Your task to perform on an android device: move a message to another label in the gmail app Image 0: 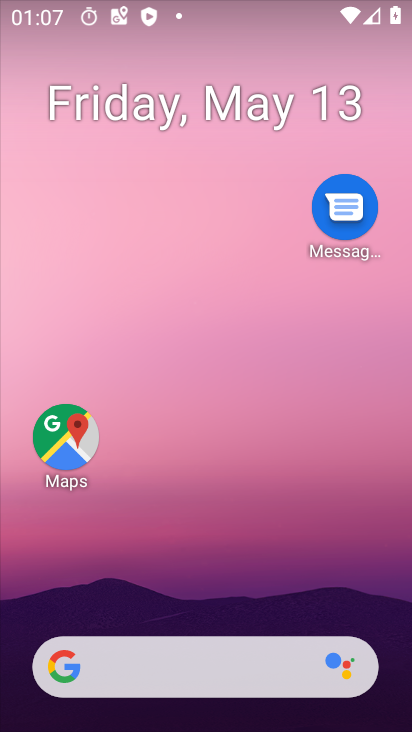
Step 0: drag from (218, 602) to (197, 122)
Your task to perform on an android device: move a message to another label in the gmail app Image 1: 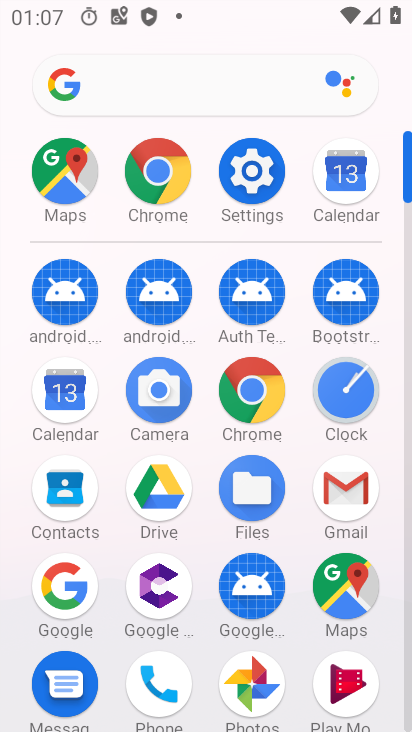
Step 1: click (351, 487)
Your task to perform on an android device: move a message to another label in the gmail app Image 2: 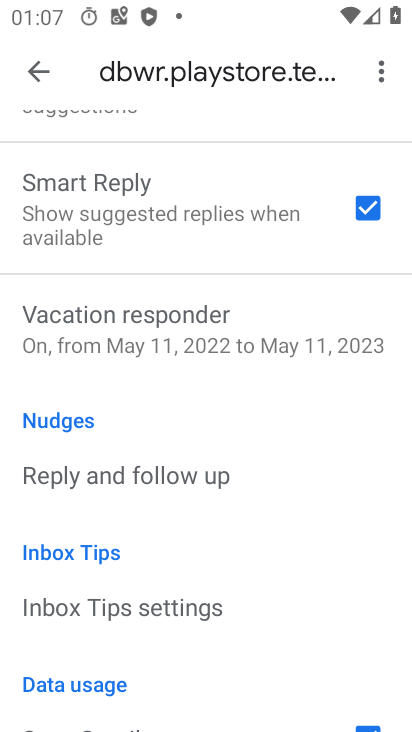
Step 2: drag from (285, 586) to (301, 274)
Your task to perform on an android device: move a message to another label in the gmail app Image 3: 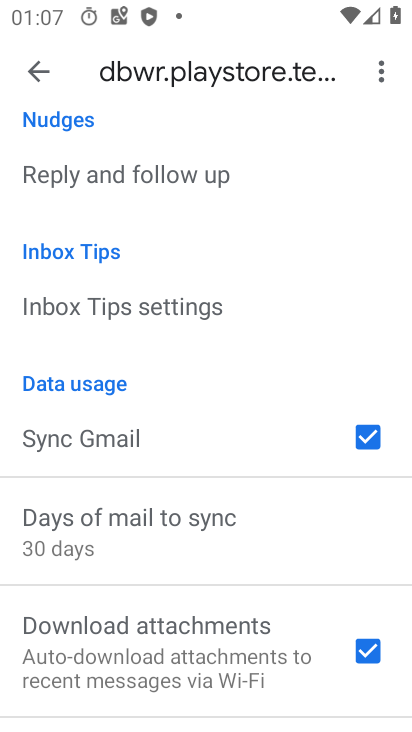
Step 3: click (25, 71)
Your task to perform on an android device: move a message to another label in the gmail app Image 4: 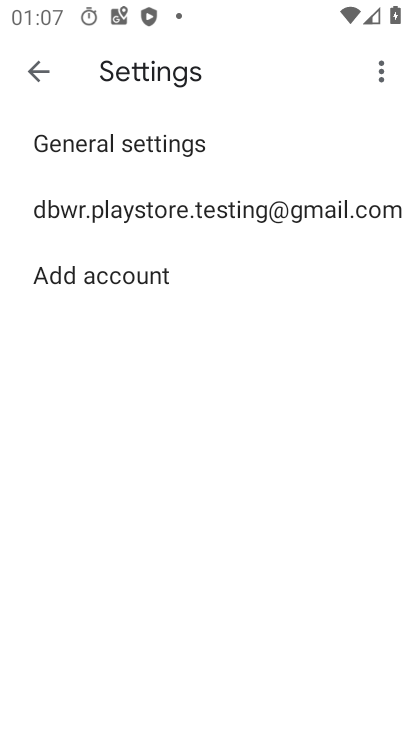
Step 4: click (38, 63)
Your task to perform on an android device: move a message to another label in the gmail app Image 5: 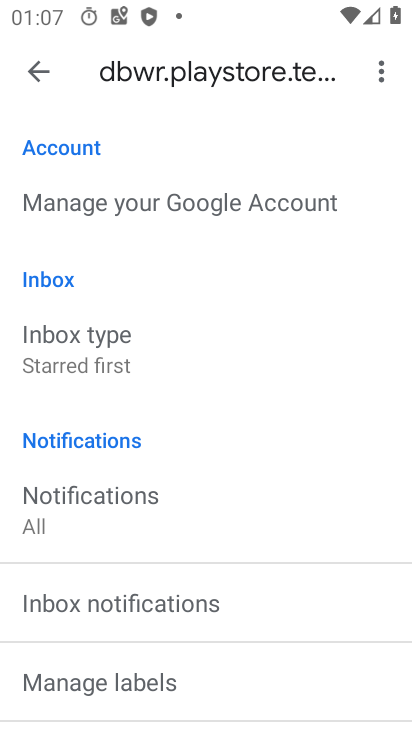
Step 5: click (40, 72)
Your task to perform on an android device: move a message to another label in the gmail app Image 6: 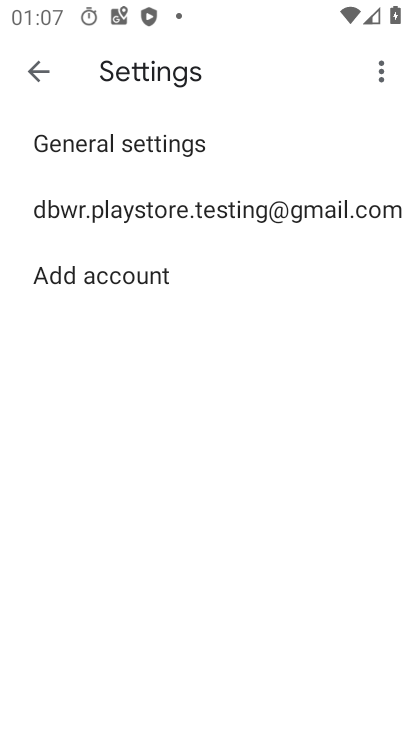
Step 6: click (33, 67)
Your task to perform on an android device: move a message to another label in the gmail app Image 7: 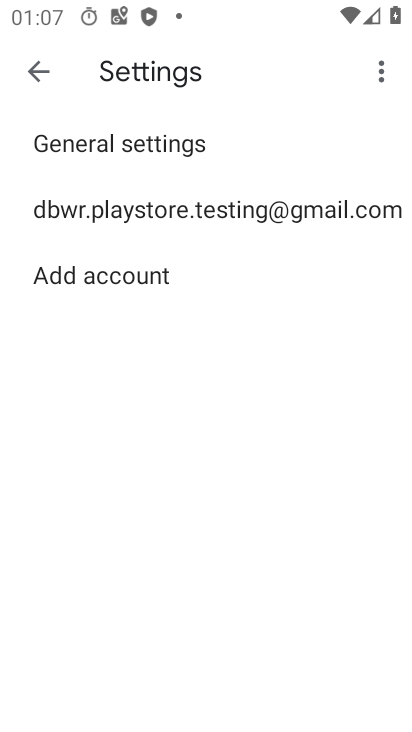
Step 7: click (33, 67)
Your task to perform on an android device: move a message to another label in the gmail app Image 8: 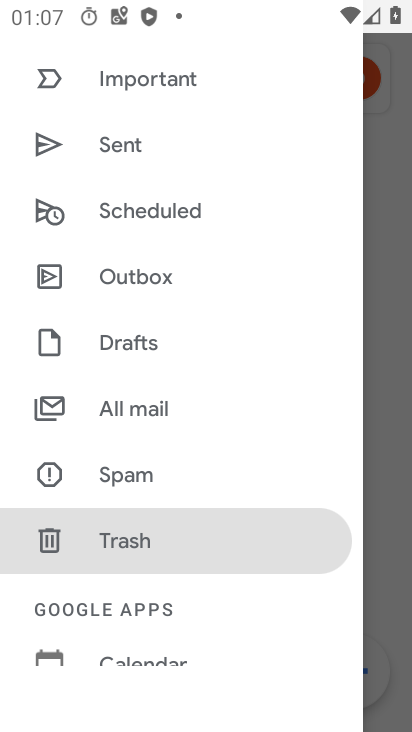
Step 8: click (374, 245)
Your task to perform on an android device: move a message to another label in the gmail app Image 9: 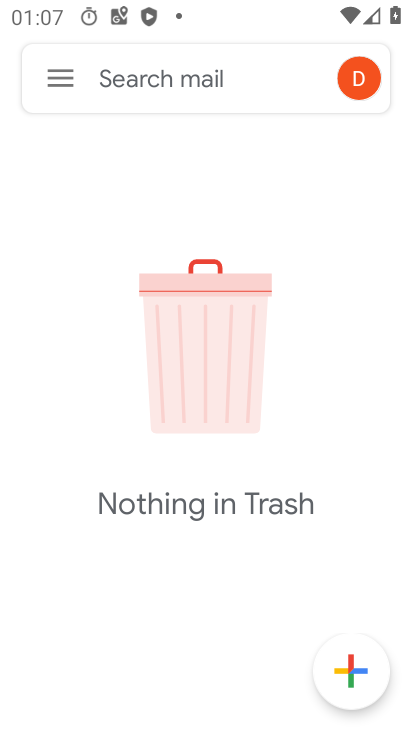
Step 9: click (58, 72)
Your task to perform on an android device: move a message to another label in the gmail app Image 10: 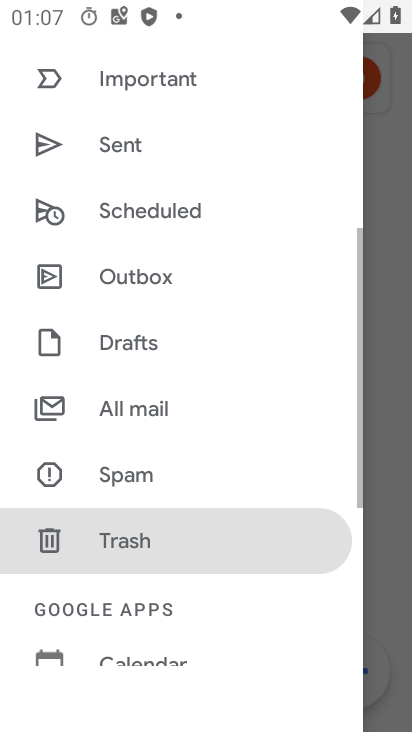
Step 10: drag from (227, 134) to (247, 613)
Your task to perform on an android device: move a message to another label in the gmail app Image 11: 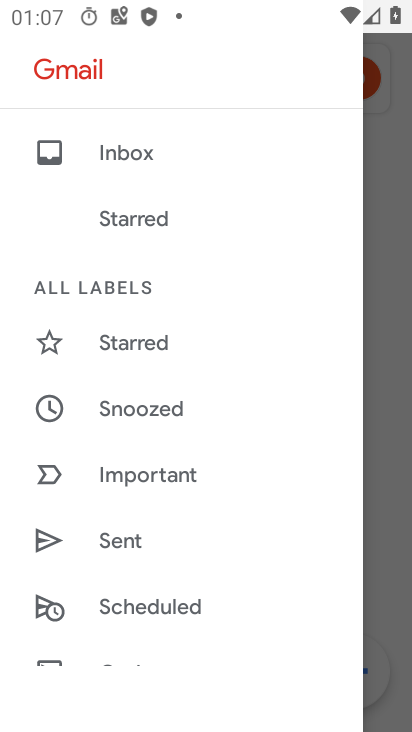
Step 11: click (114, 160)
Your task to perform on an android device: move a message to another label in the gmail app Image 12: 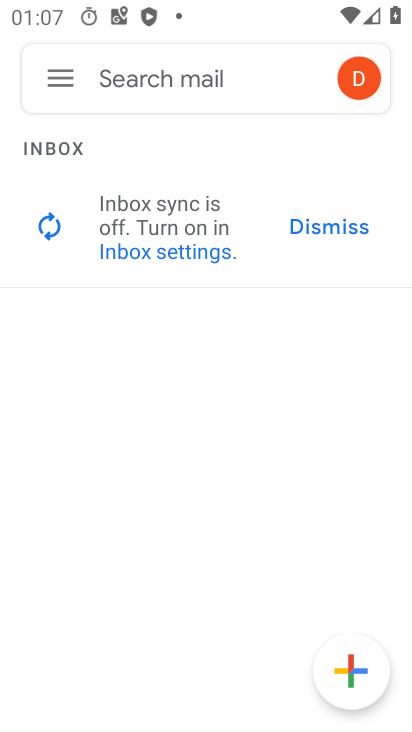
Step 12: task complete